Your task to perform on an android device: Go to ESPN.com Image 0: 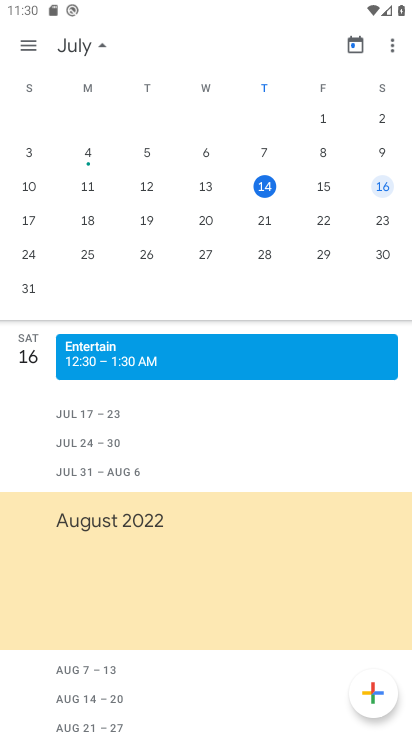
Step 0: press back button
Your task to perform on an android device: Go to ESPN.com Image 1: 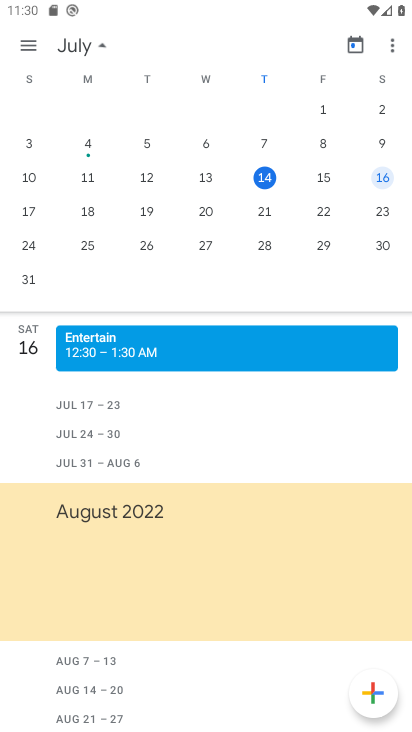
Step 1: press back button
Your task to perform on an android device: Go to ESPN.com Image 2: 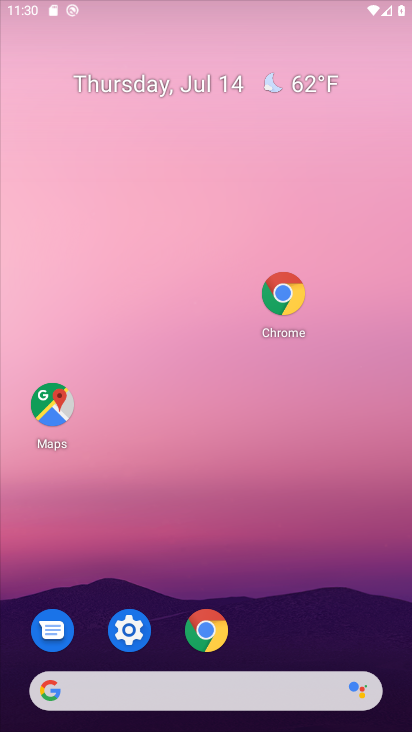
Step 2: press home button
Your task to perform on an android device: Go to ESPN.com Image 3: 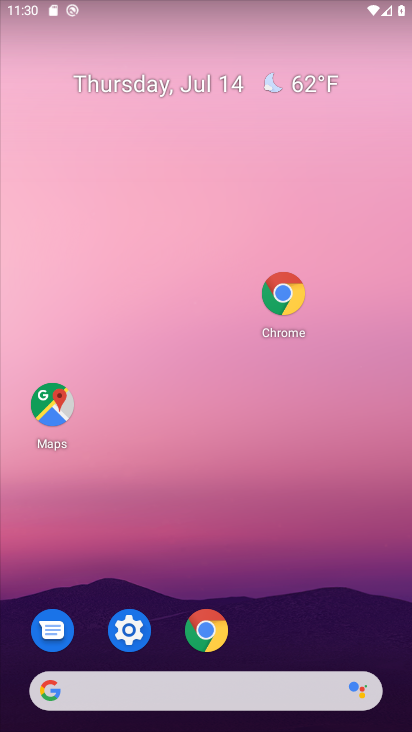
Step 3: drag from (264, 240) to (247, 102)
Your task to perform on an android device: Go to ESPN.com Image 4: 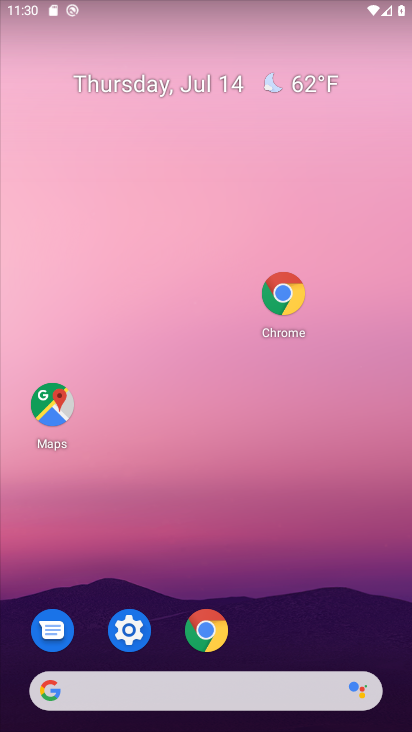
Step 4: drag from (207, 582) to (197, 5)
Your task to perform on an android device: Go to ESPN.com Image 5: 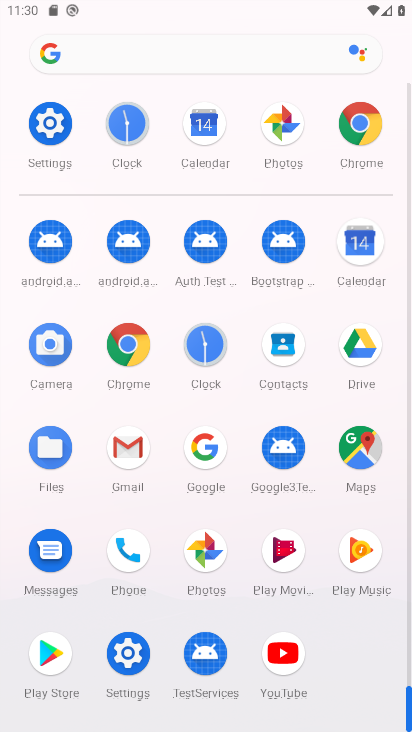
Step 5: click (132, 338)
Your task to perform on an android device: Go to ESPN.com Image 6: 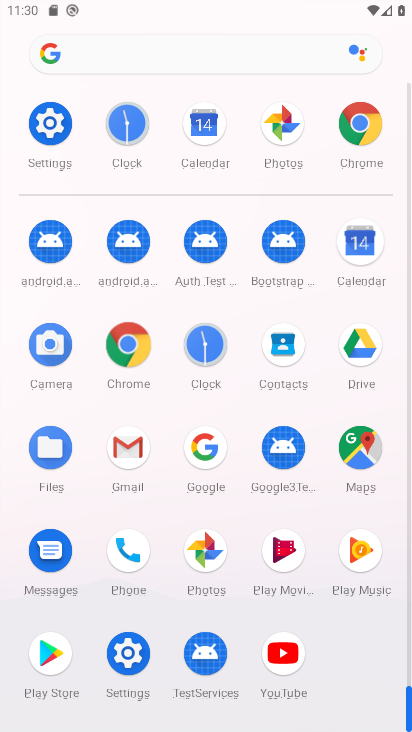
Step 6: click (123, 346)
Your task to perform on an android device: Go to ESPN.com Image 7: 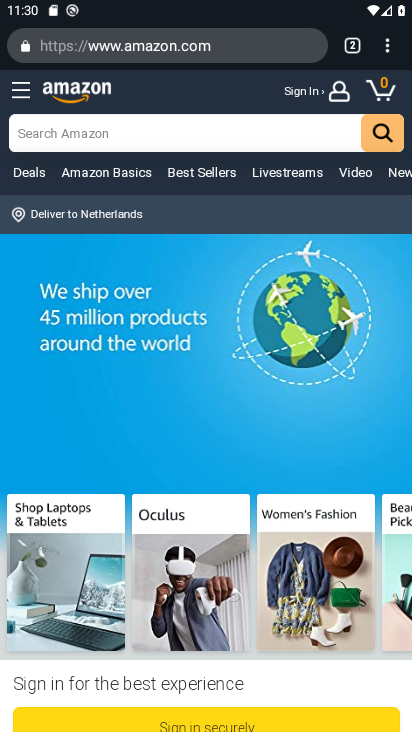
Step 7: drag from (385, 48) to (247, 152)
Your task to perform on an android device: Go to ESPN.com Image 8: 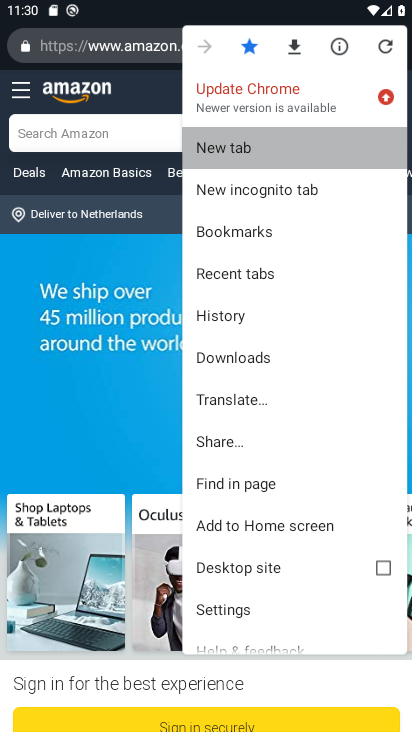
Step 8: click (247, 152)
Your task to perform on an android device: Go to ESPN.com Image 9: 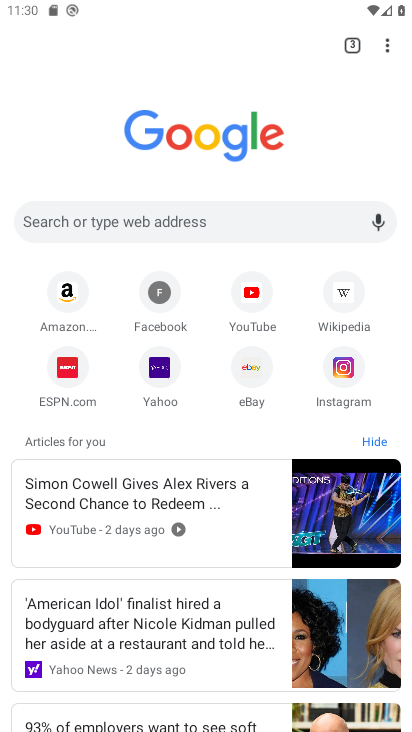
Step 9: click (59, 356)
Your task to perform on an android device: Go to ESPN.com Image 10: 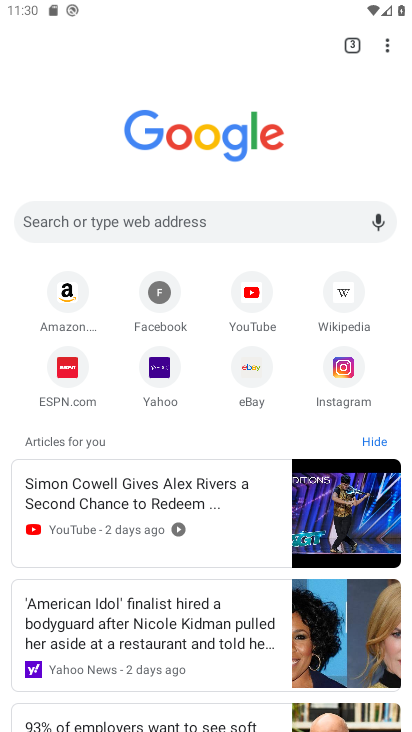
Step 10: click (60, 359)
Your task to perform on an android device: Go to ESPN.com Image 11: 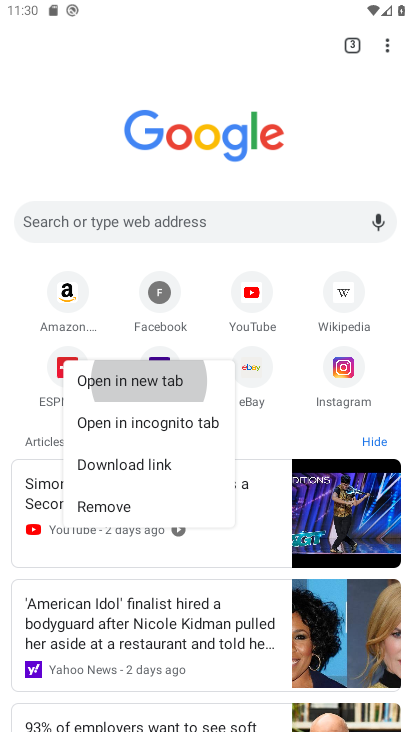
Step 11: click (61, 360)
Your task to perform on an android device: Go to ESPN.com Image 12: 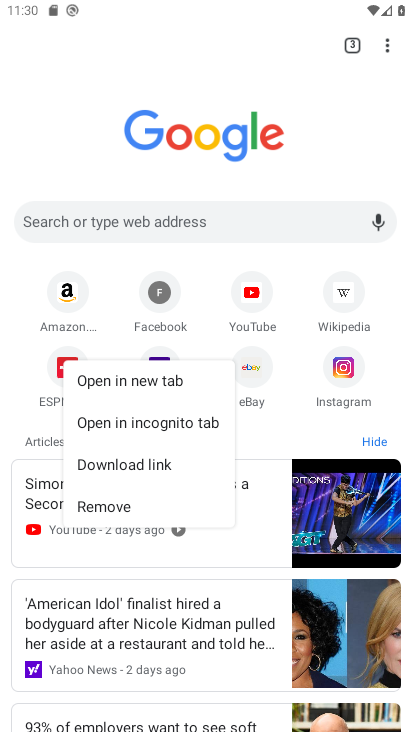
Step 12: click (72, 366)
Your task to perform on an android device: Go to ESPN.com Image 13: 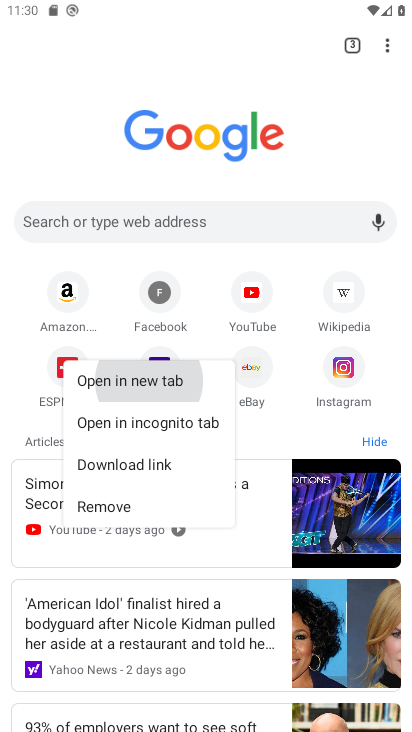
Step 13: click (72, 366)
Your task to perform on an android device: Go to ESPN.com Image 14: 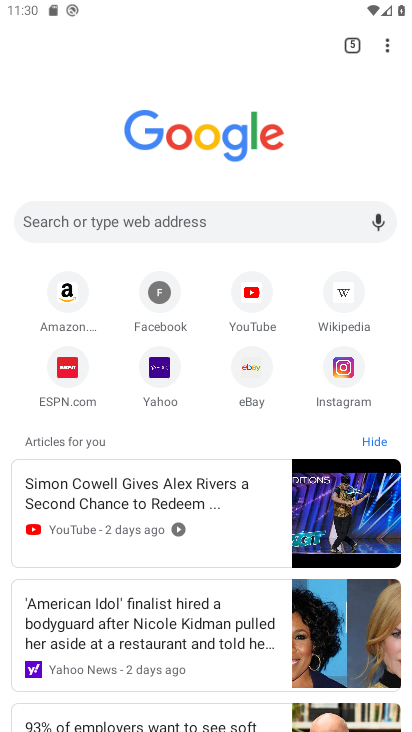
Step 14: task complete